Your task to perform on an android device: open a bookmark in the chrome app Image 0: 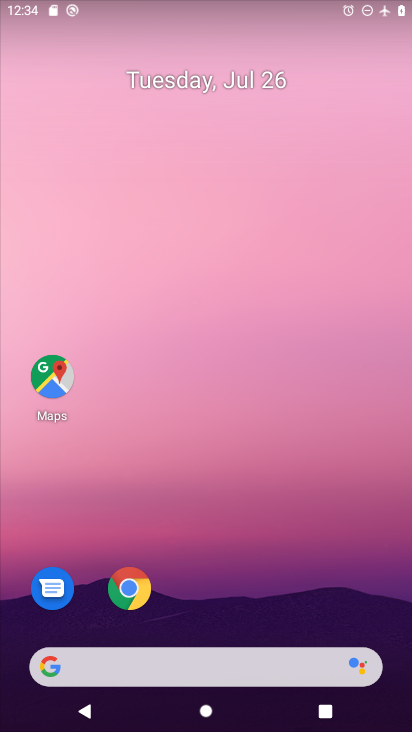
Step 0: click (131, 579)
Your task to perform on an android device: open a bookmark in the chrome app Image 1: 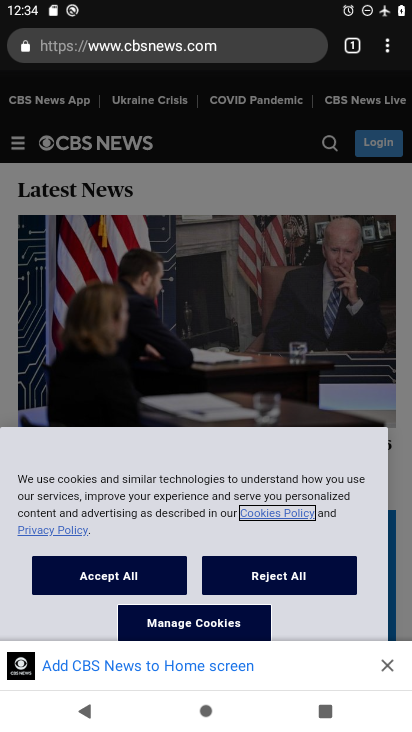
Step 1: click (394, 49)
Your task to perform on an android device: open a bookmark in the chrome app Image 2: 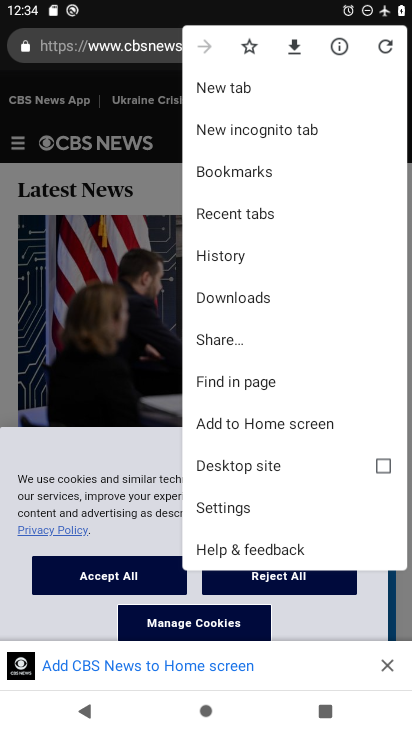
Step 2: click (277, 175)
Your task to perform on an android device: open a bookmark in the chrome app Image 3: 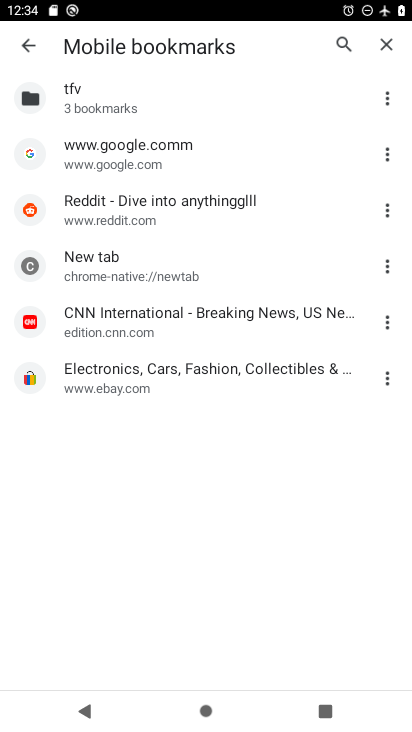
Step 3: click (252, 213)
Your task to perform on an android device: open a bookmark in the chrome app Image 4: 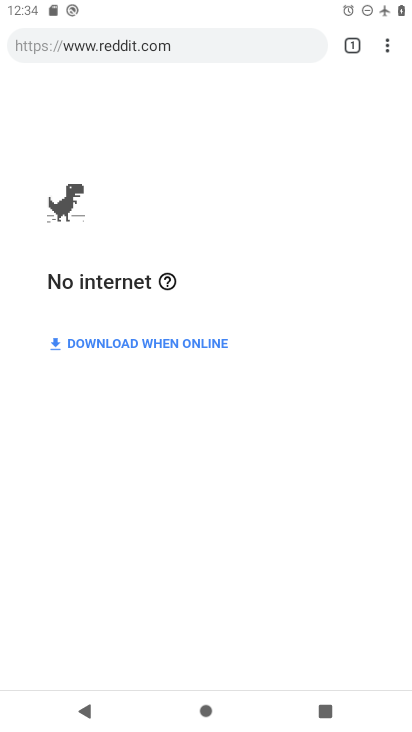
Step 4: task complete